Your task to perform on an android device: Open Reddit.com Image 0: 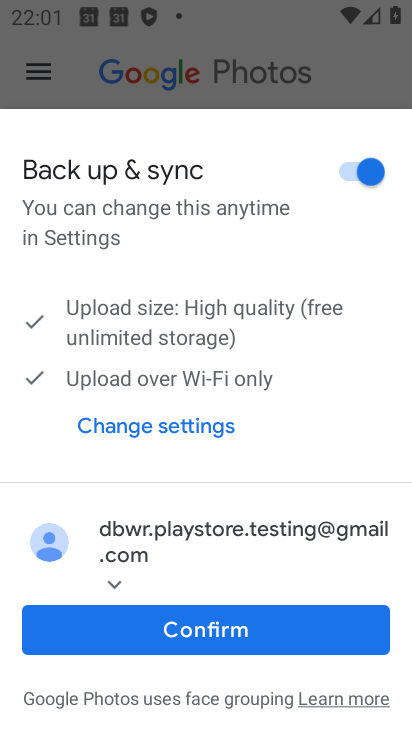
Step 0: press home button
Your task to perform on an android device: Open Reddit.com Image 1: 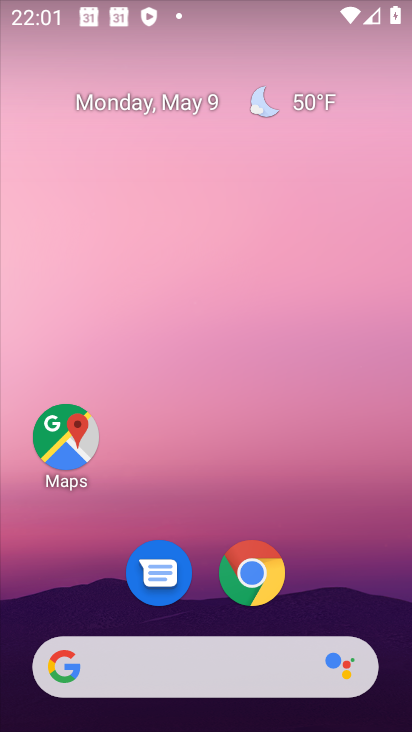
Step 1: drag from (325, 532) to (313, 79)
Your task to perform on an android device: Open Reddit.com Image 2: 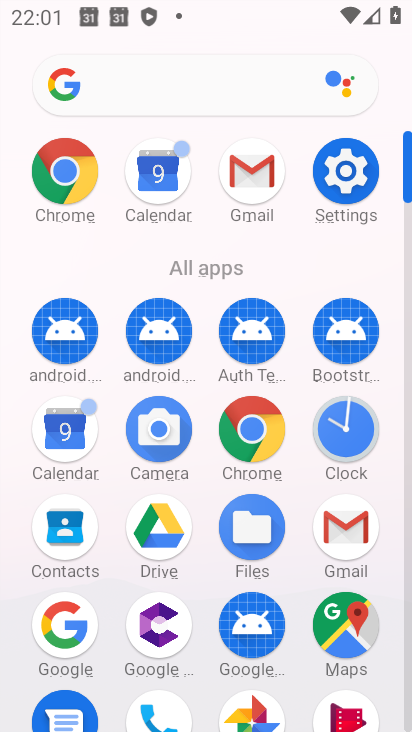
Step 2: click (253, 435)
Your task to perform on an android device: Open Reddit.com Image 3: 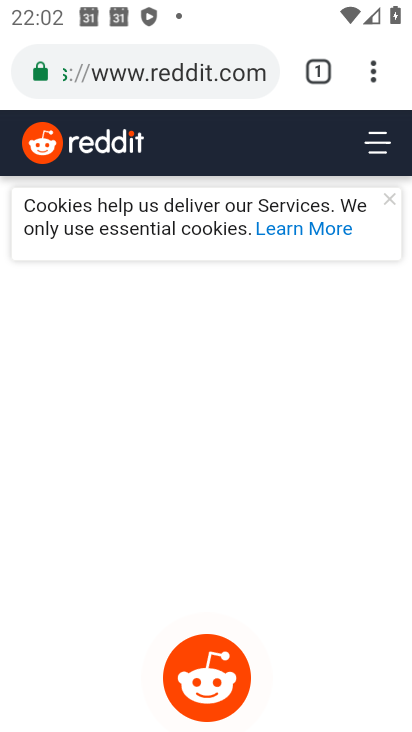
Step 3: task complete